Your task to perform on an android device: Go to display settings Image 0: 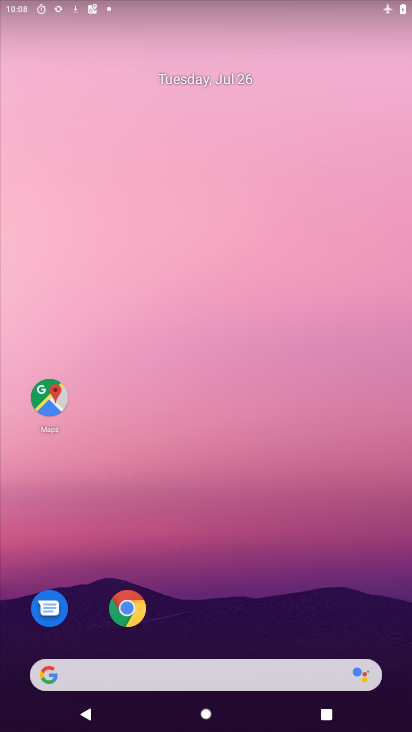
Step 0: drag from (182, 511) to (172, 29)
Your task to perform on an android device: Go to display settings Image 1: 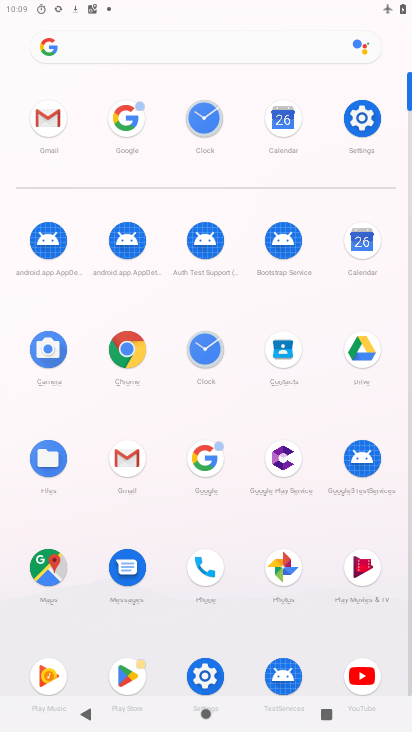
Step 1: click (357, 119)
Your task to perform on an android device: Go to display settings Image 2: 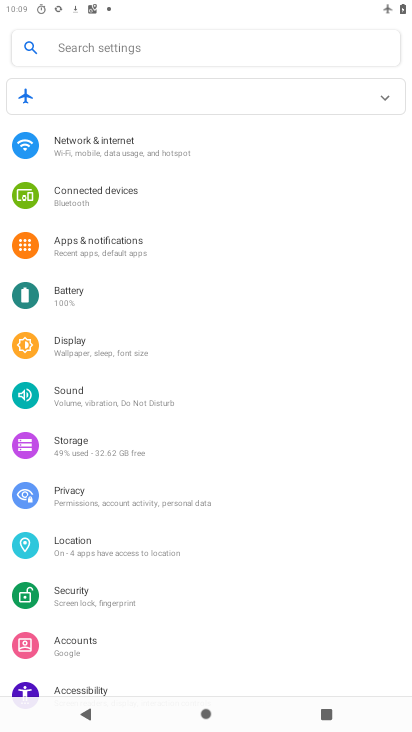
Step 2: click (103, 334)
Your task to perform on an android device: Go to display settings Image 3: 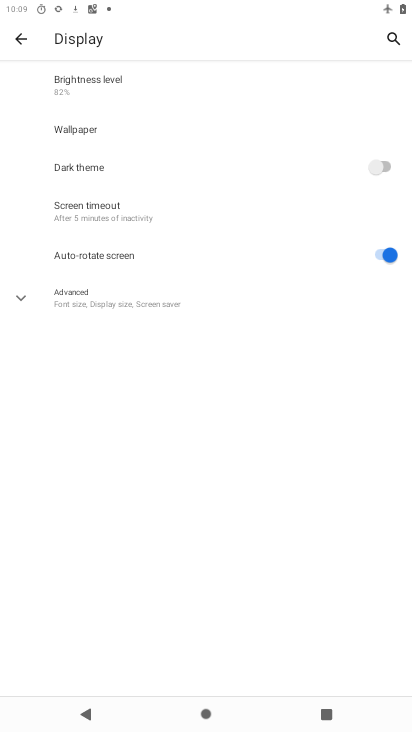
Step 3: task complete